Your task to perform on an android device: open sync settings in chrome Image 0: 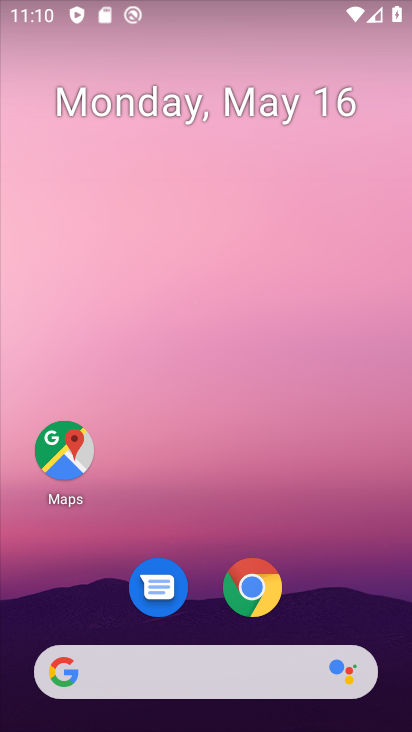
Step 0: drag from (327, 584) to (363, 144)
Your task to perform on an android device: open sync settings in chrome Image 1: 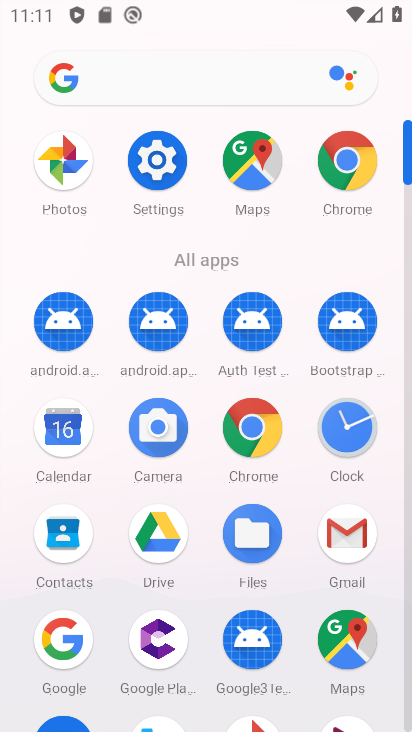
Step 1: click (354, 156)
Your task to perform on an android device: open sync settings in chrome Image 2: 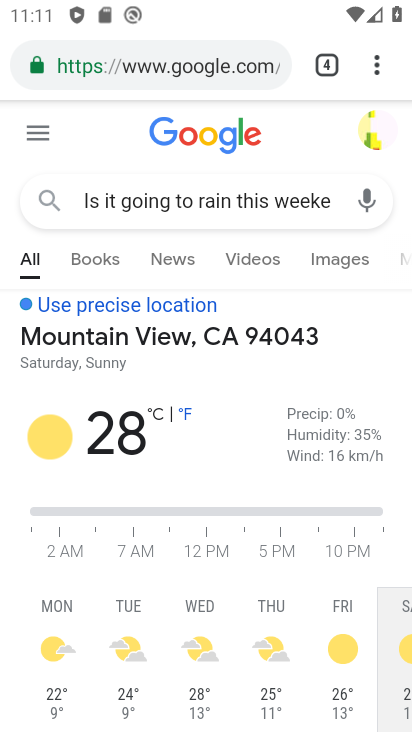
Step 2: click (365, 68)
Your task to perform on an android device: open sync settings in chrome Image 3: 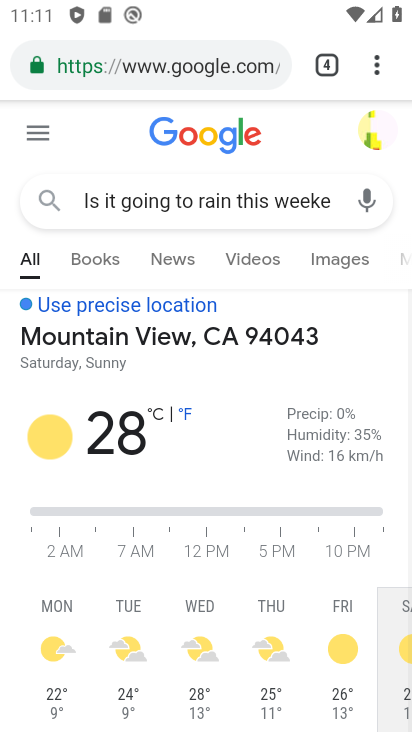
Step 3: click (373, 57)
Your task to perform on an android device: open sync settings in chrome Image 4: 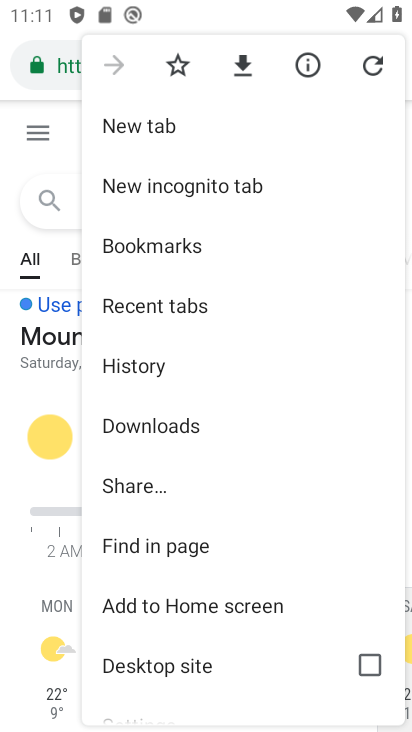
Step 4: drag from (202, 602) to (250, 330)
Your task to perform on an android device: open sync settings in chrome Image 5: 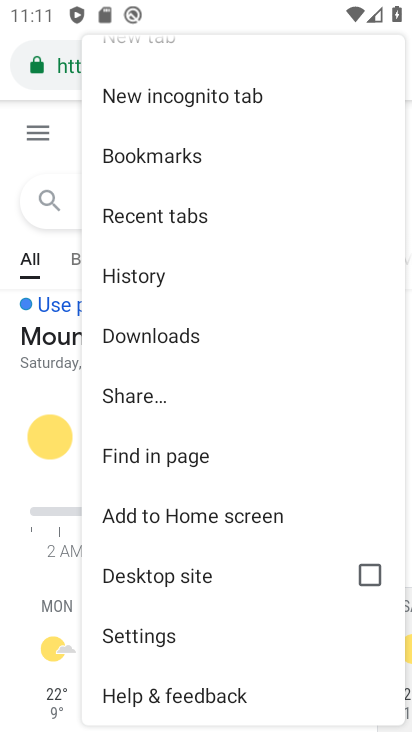
Step 5: click (151, 632)
Your task to perform on an android device: open sync settings in chrome Image 6: 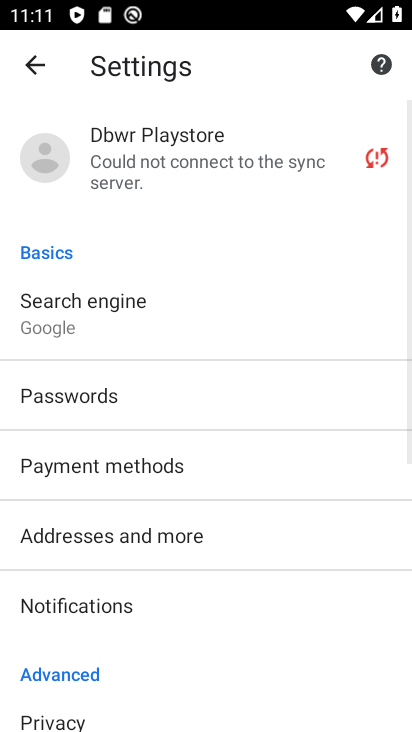
Step 6: click (178, 153)
Your task to perform on an android device: open sync settings in chrome Image 7: 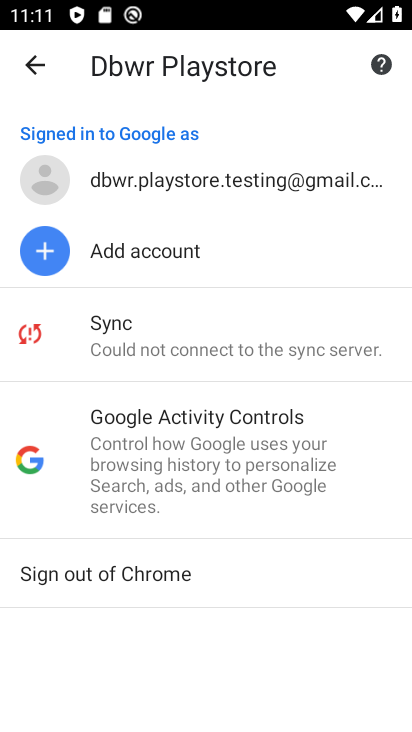
Step 7: task complete